Your task to perform on an android device: set default search engine in the chrome app Image 0: 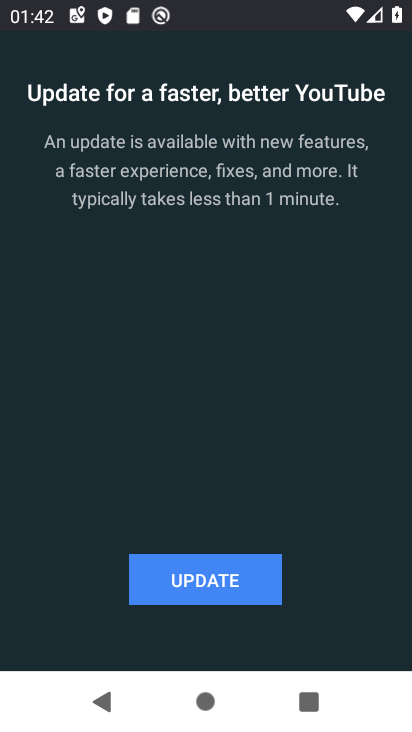
Step 0: press home button
Your task to perform on an android device: set default search engine in the chrome app Image 1: 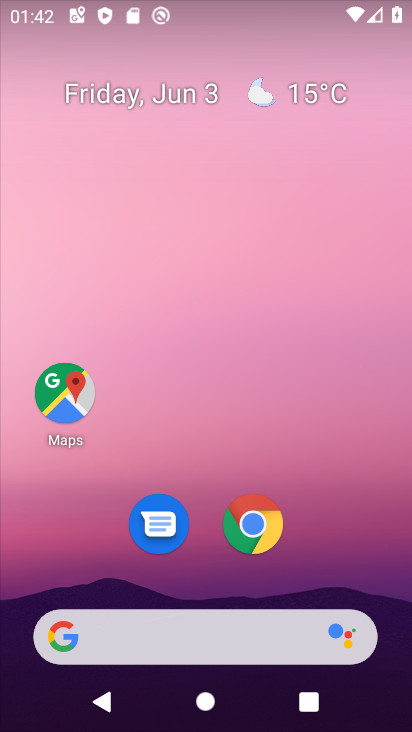
Step 1: click (253, 518)
Your task to perform on an android device: set default search engine in the chrome app Image 2: 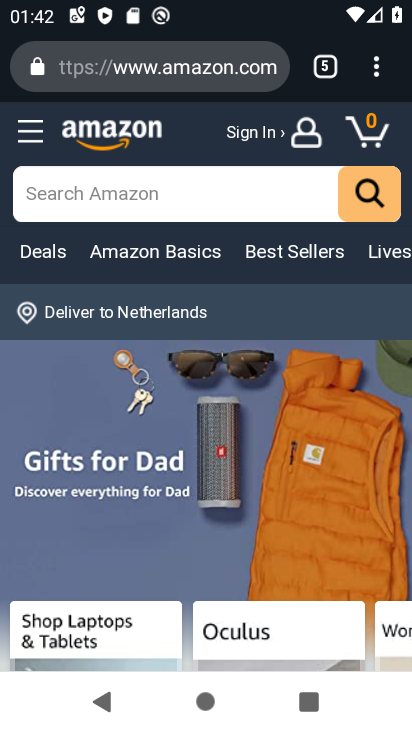
Step 2: click (374, 75)
Your task to perform on an android device: set default search engine in the chrome app Image 3: 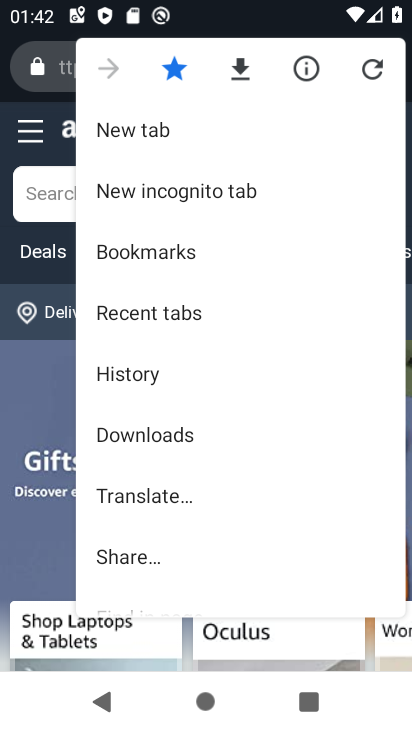
Step 3: drag from (285, 508) to (326, 185)
Your task to perform on an android device: set default search engine in the chrome app Image 4: 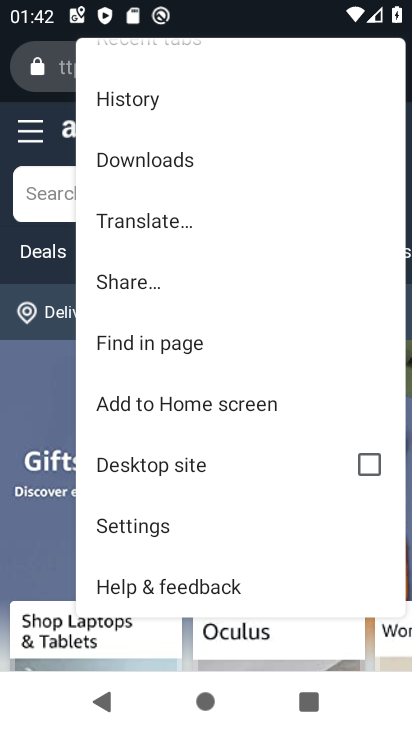
Step 4: click (192, 522)
Your task to perform on an android device: set default search engine in the chrome app Image 5: 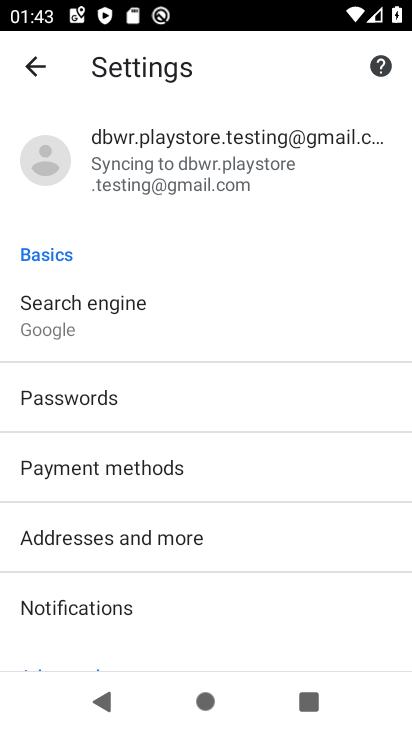
Step 5: click (146, 316)
Your task to perform on an android device: set default search engine in the chrome app Image 6: 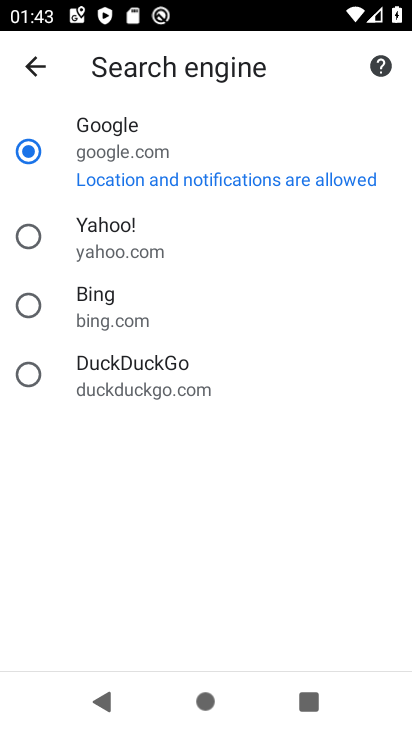
Step 6: task complete